Your task to perform on an android device: Open location settings Image 0: 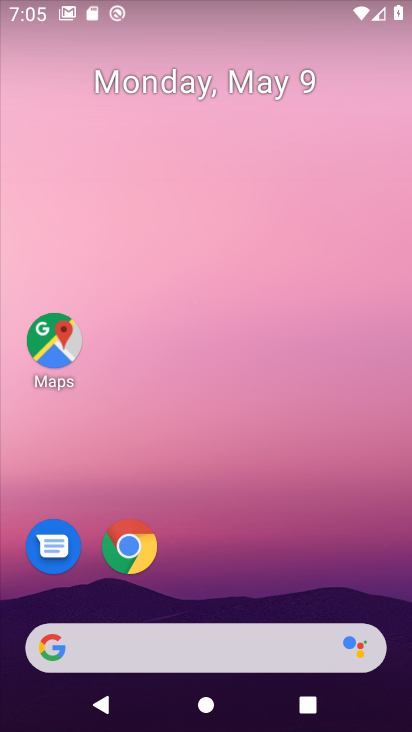
Step 0: drag from (232, 296) to (255, 7)
Your task to perform on an android device: Open location settings Image 1: 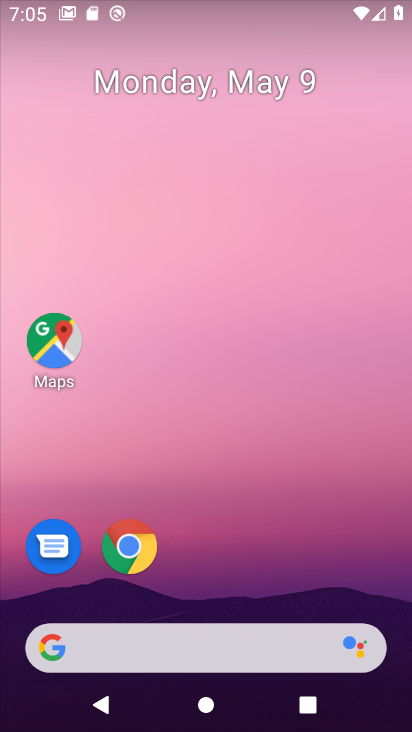
Step 1: drag from (265, 599) to (278, 119)
Your task to perform on an android device: Open location settings Image 2: 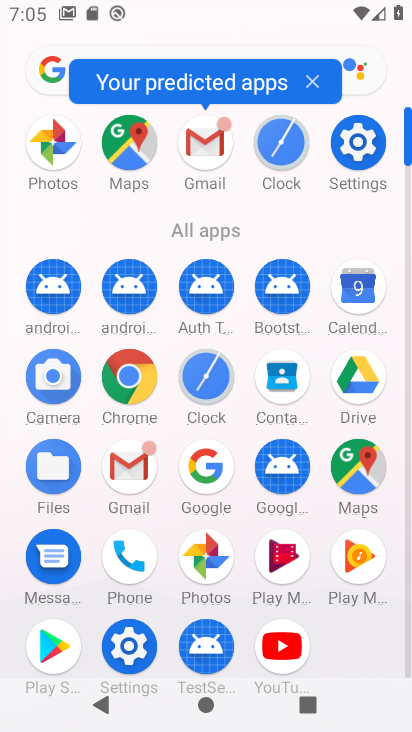
Step 2: click (360, 157)
Your task to perform on an android device: Open location settings Image 3: 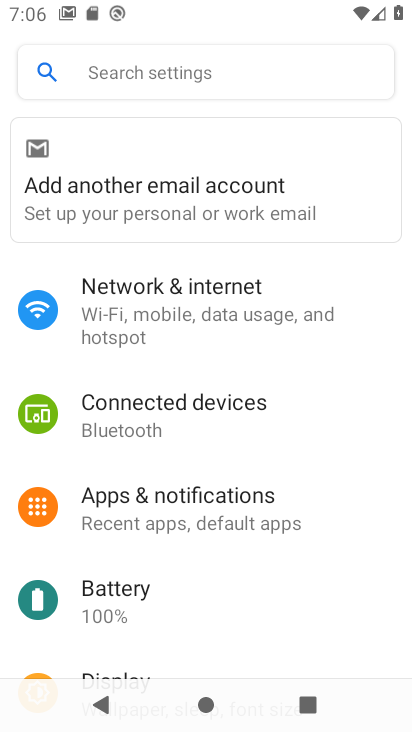
Step 3: drag from (218, 549) to (261, 198)
Your task to perform on an android device: Open location settings Image 4: 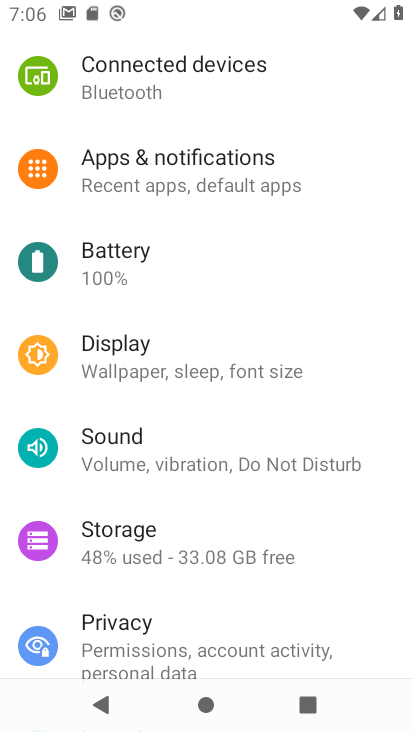
Step 4: drag from (222, 560) to (260, 300)
Your task to perform on an android device: Open location settings Image 5: 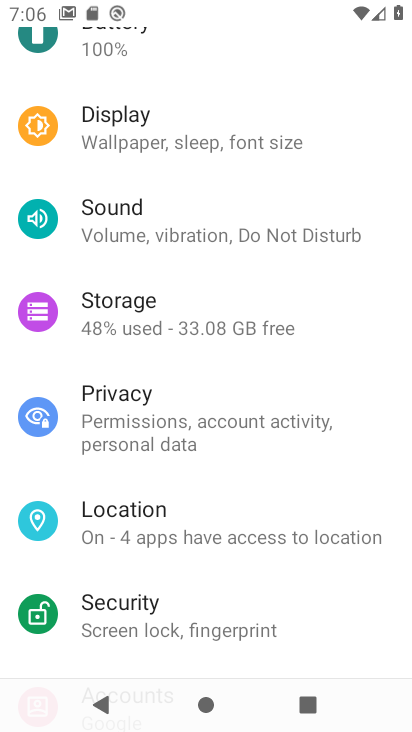
Step 5: click (231, 536)
Your task to perform on an android device: Open location settings Image 6: 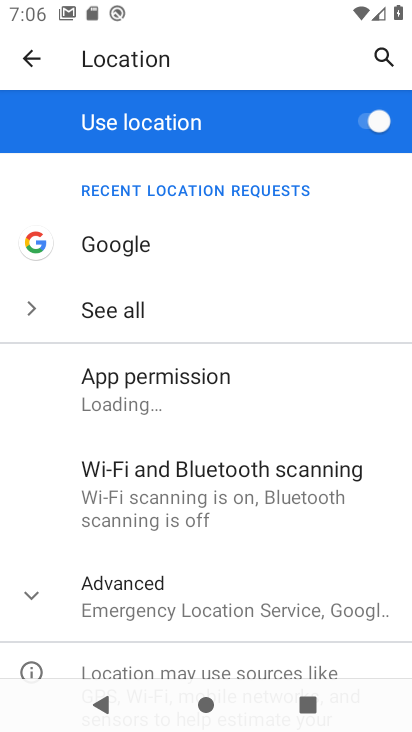
Step 6: task complete